Your task to perform on an android device: change the clock style Image 0: 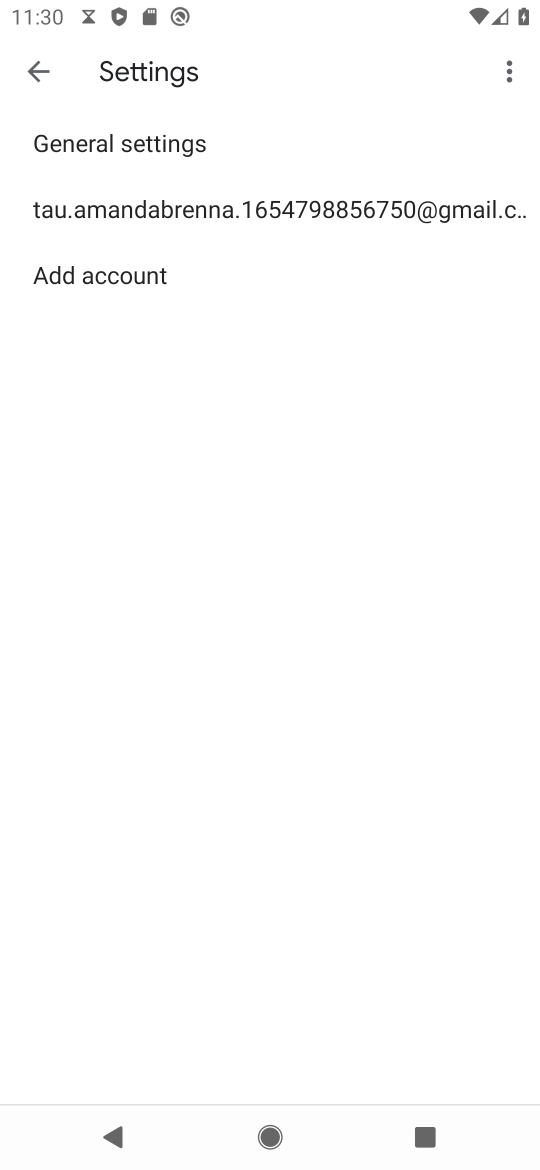
Step 0: press home button
Your task to perform on an android device: change the clock style Image 1: 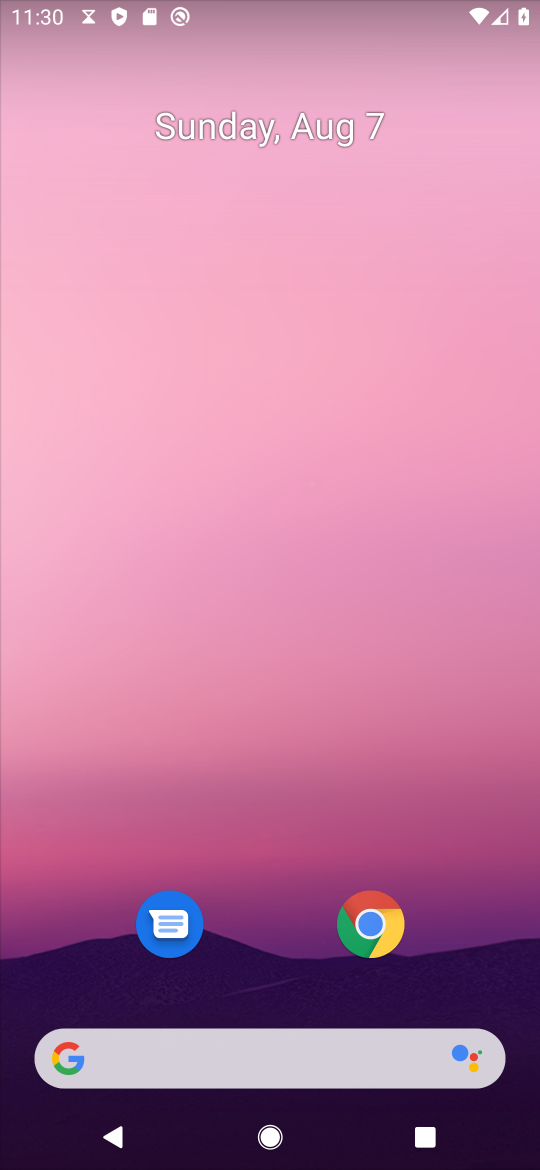
Step 1: drag from (227, 1024) to (292, 284)
Your task to perform on an android device: change the clock style Image 2: 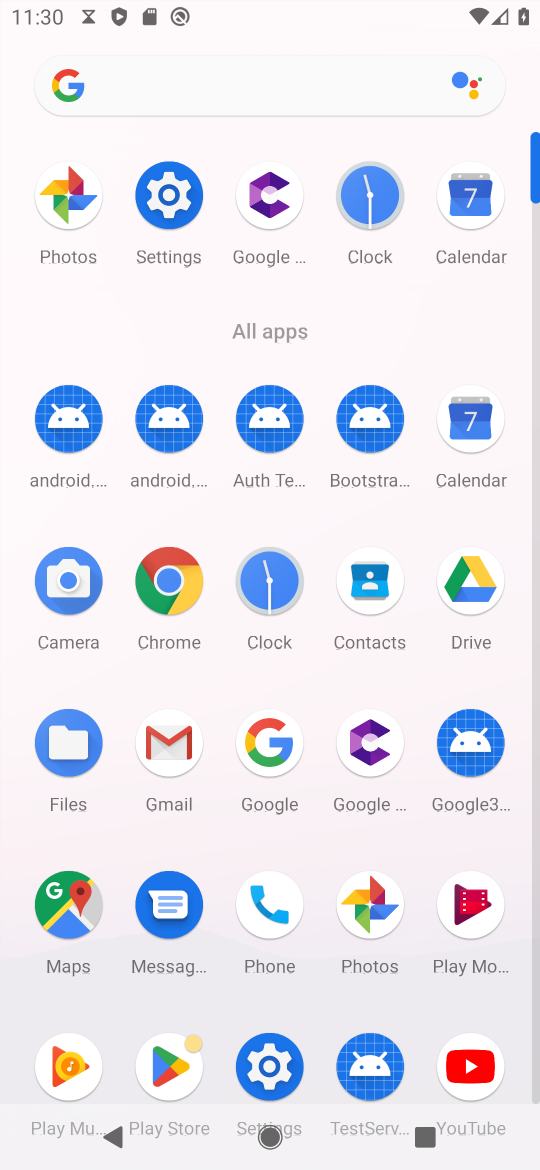
Step 2: click (380, 205)
Your task to perform on an android device: change the clock style Image 3: 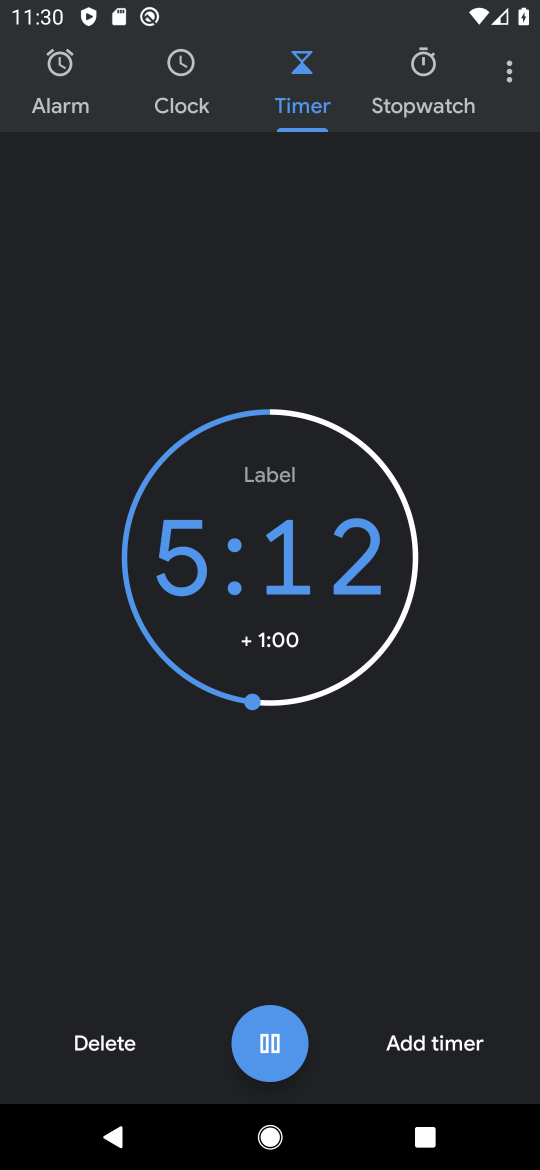
Step 3: click (516, 75)
Your task to perform on an android device: change the clock style Image 4: 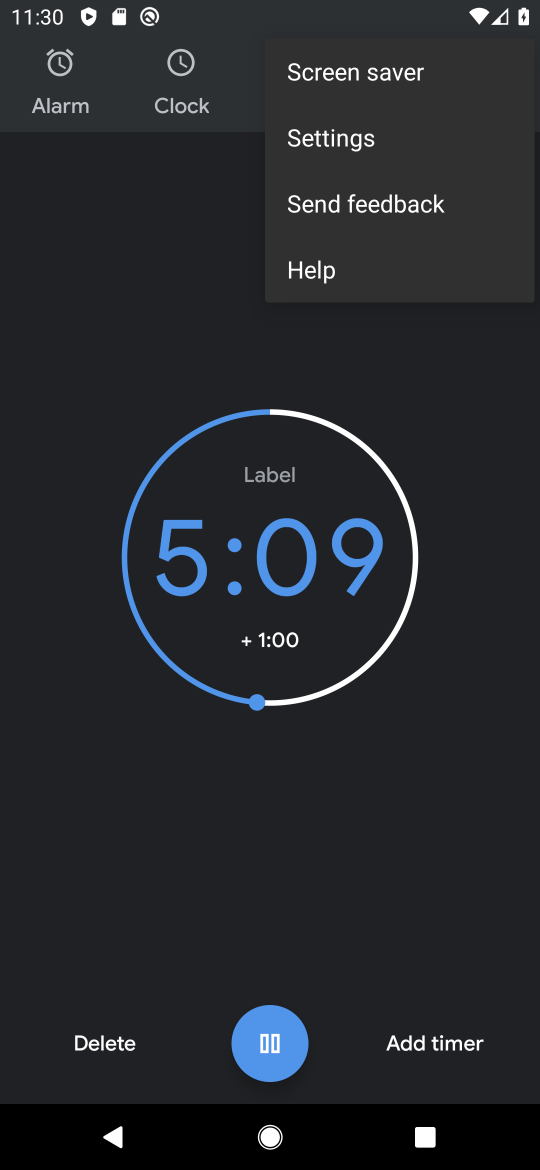
Step 4: click (327, 140)
Your task to perform on an android device: change the clock style Image 5: 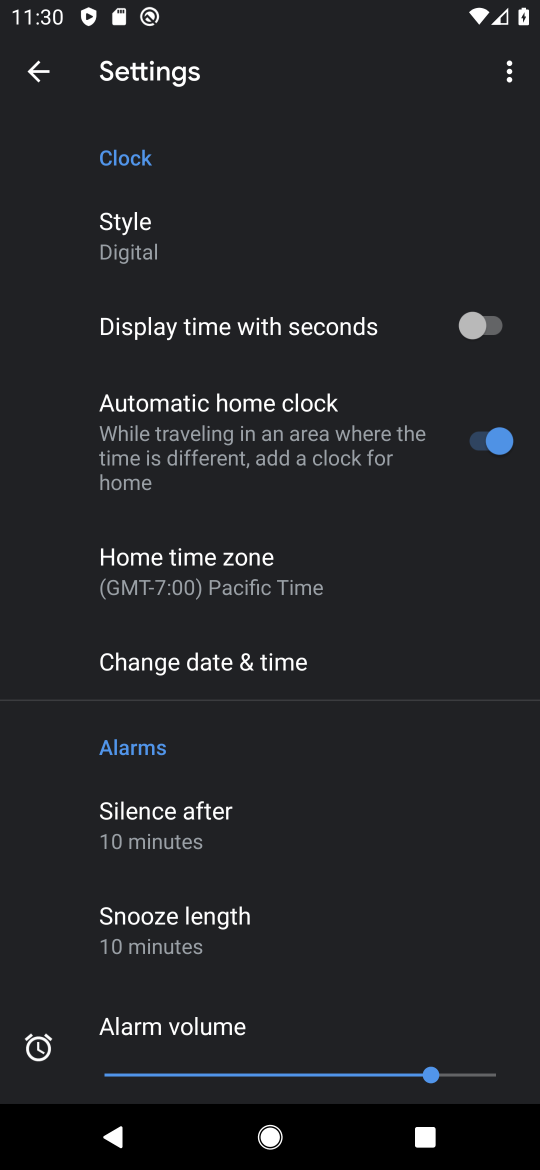
Step 5: click (142, 259)
Your task to perform on an android device: change the clock style Image 6: 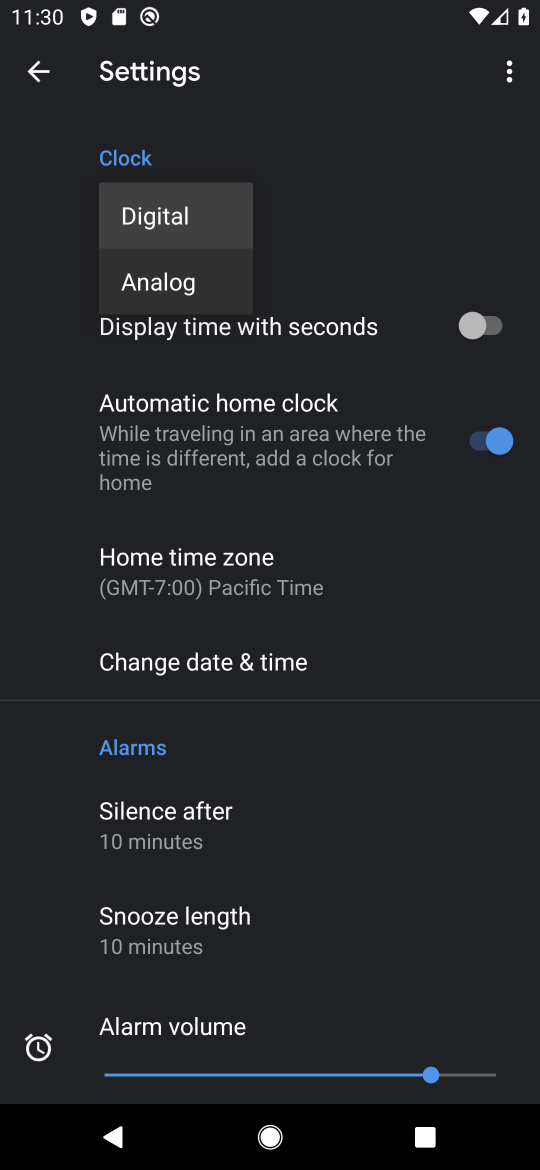
Step 6: click (176, 283)
Your task to perform on an android device: change the clock style Image 7: 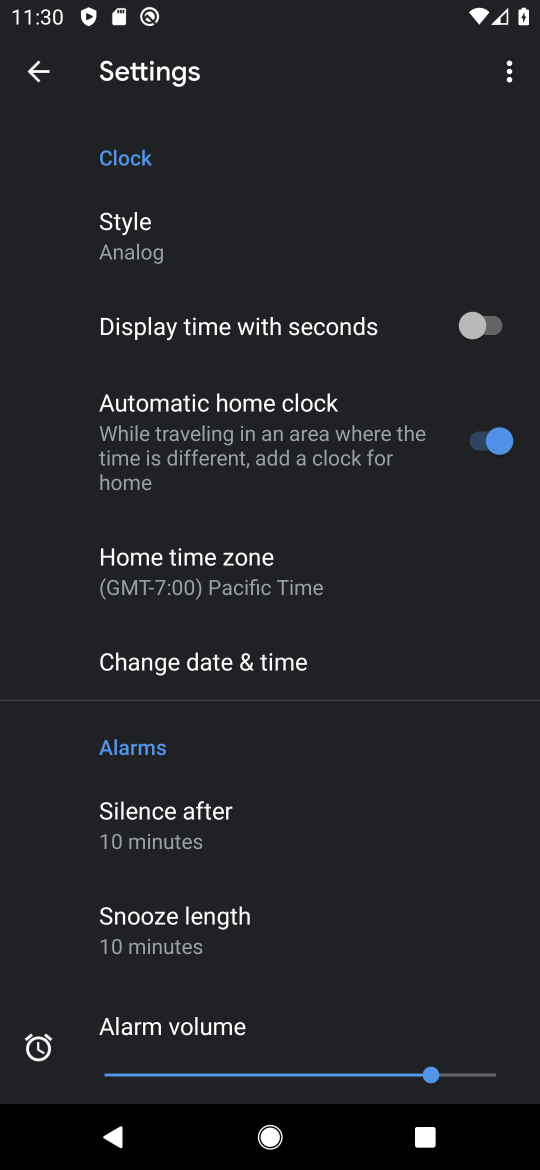
Step 7: task complete